Your task to perform on an android device: Go to Yahoo.com Image 0: 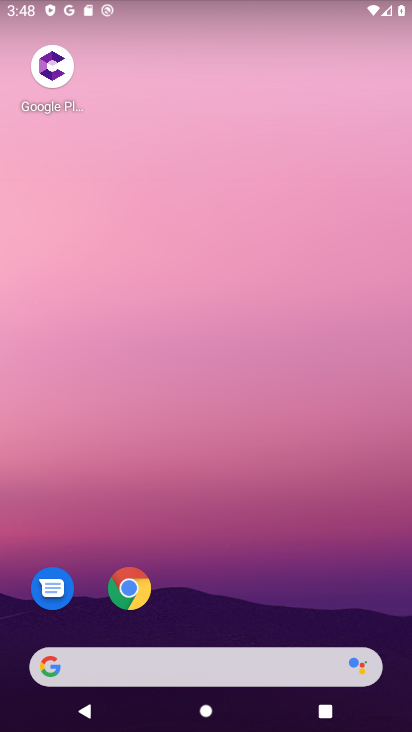
Step 0: click (130, 585)
Your task to perform on an android device: Go to Yahoo.com Image 1: 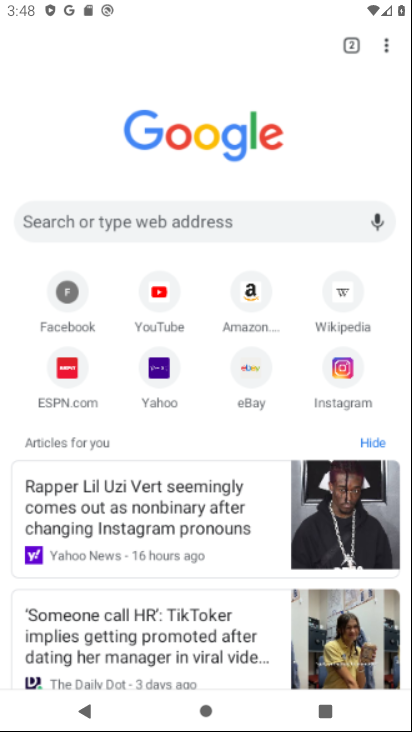
Step 1: click (164, 385)
Your task to perform on an android device: Go to Yahoo.com Image 2: 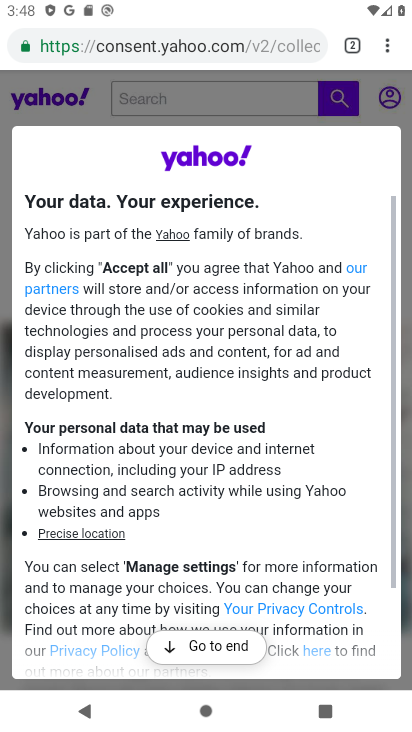
Step 2: drag from (282, 387) to (322, 251)
Your task to perform on an android device: Go to Yahoo.com Image 3: 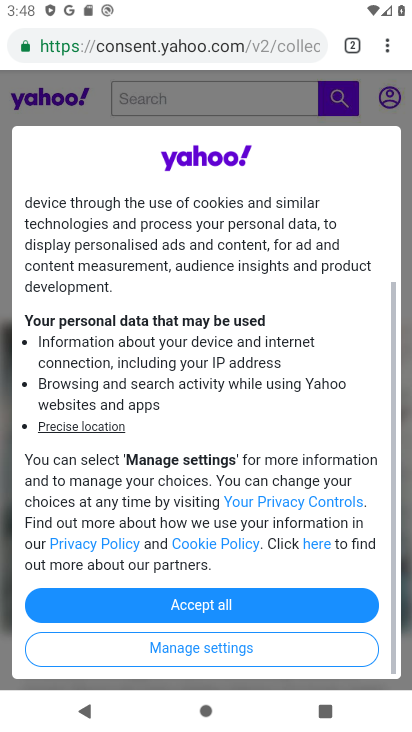
Step 3: click (206, 599)
Your task to perform on an android device: Go to Yahoo.com Image 4: 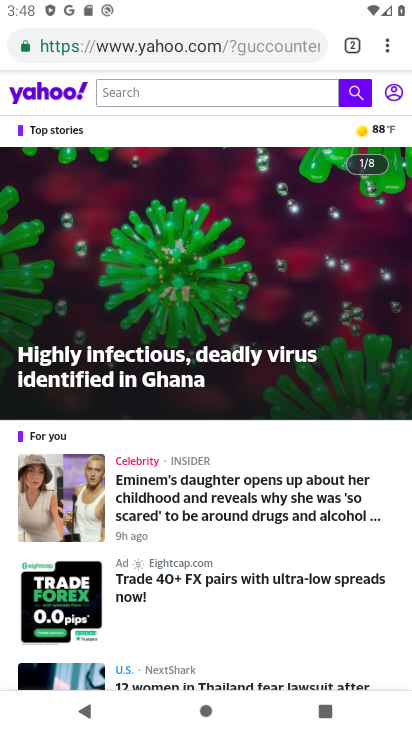
Step 4: task complete